Your task to perform on an android device: Search for good Korean restaurants Image 0: 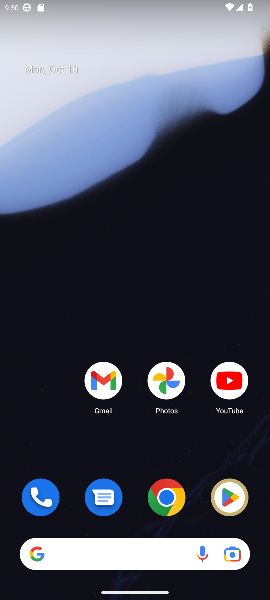
Step 0: drag from (100, 514) to (113, 167)
Your task to perform on an android device: Search for good Korean restaurants Image 1: 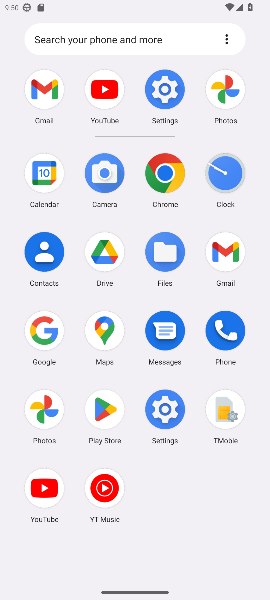
Step 1: click (28, 328)
Your task to perform on an android device: Search for good Korean restaurants Image 2: 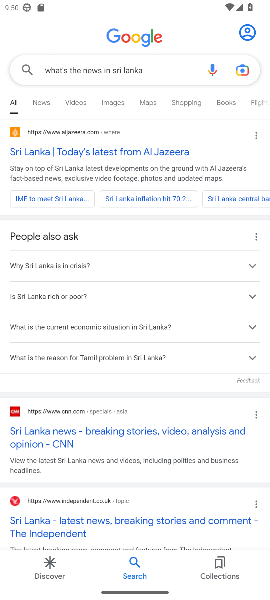
Step 2: click (143, 61)
Your task to perform on an android device: Search for good Korean restaurants Image 3: 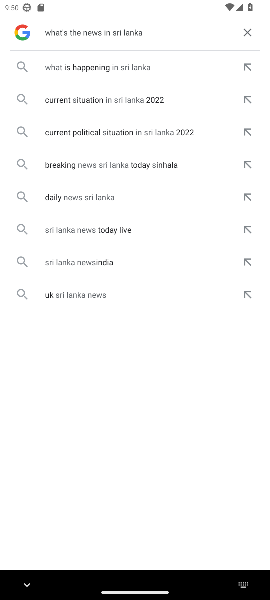
Step 3: click (250, 30)
Your task to perform on an android device: Search for good Korean restaurants Image 4: 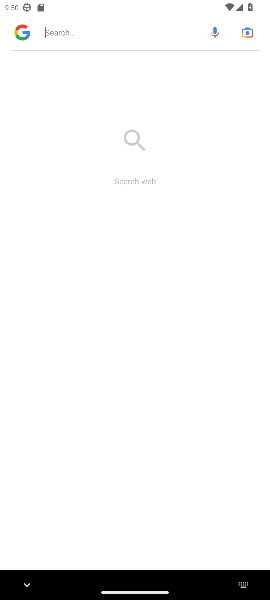
Step 4: click (120, 32)
Your task to perform on an android device: Search for good Korean restaurants Image 5: 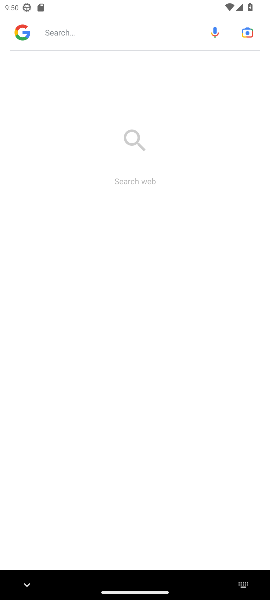
Step 5: type "Search for good Korean restaurants "
Your task to perform on an android device: Search for good Korean restaurants Image 6: 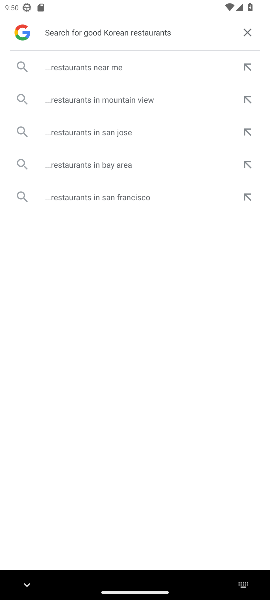
Step 6: click (91, 69)
Your task to perform on an android device: Search for good Korean restaurants Image 7: 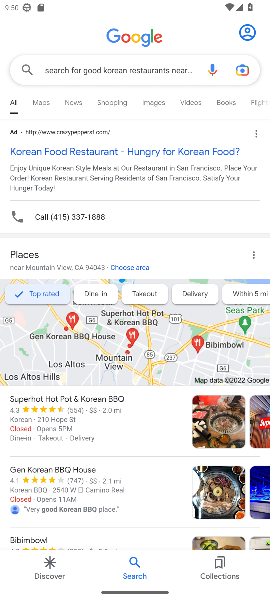
Step 7: click (96, 145)
Your task to perform on an android device: Search for good Korean restaurants Image 8: 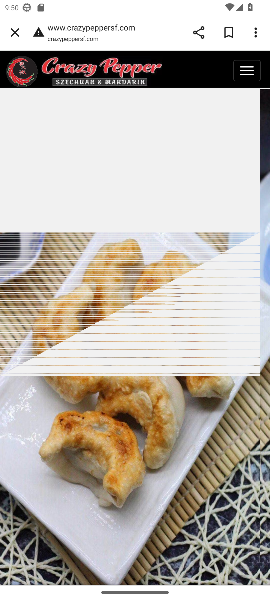
Step 8: click (53, 515)
Your task to perform on an android device: Search for good Korean restaurants Image 9: 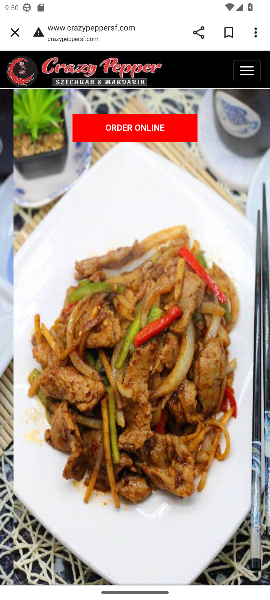
Step 9: task complete